Your task to perform on an android device: move a message to another label in the gmail app Image 0: 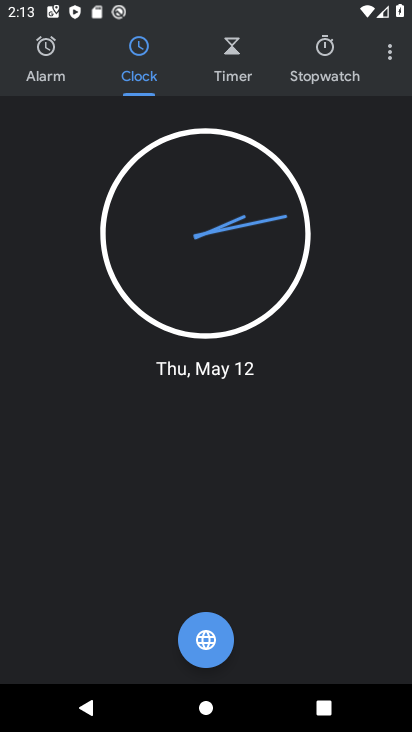
Step 0: press home button
Your task to perform on an android device: move a message to another label in the gmail app Image 1: 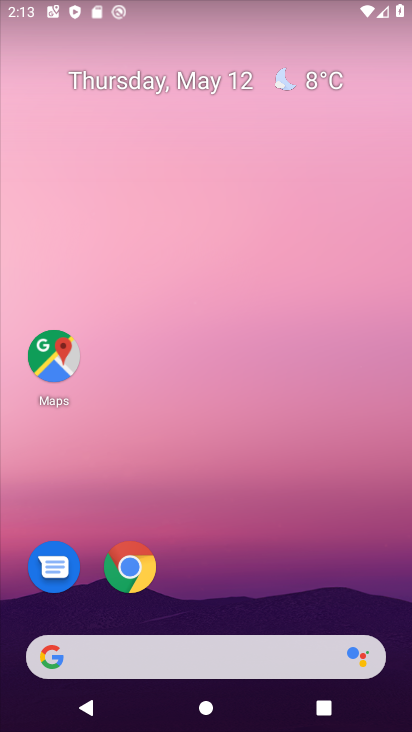
Step 1: drag from (203, 599) to (232, 157)
Your task to perform on an android device: move a message to another label in the gmail app Image 2: 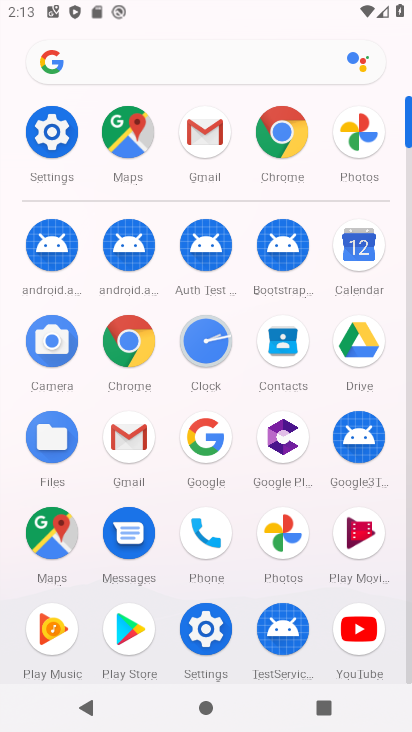
Step 2: click (126, 434)
Your task to perform on an android device: move a message to another label in the gmail app Image 3: 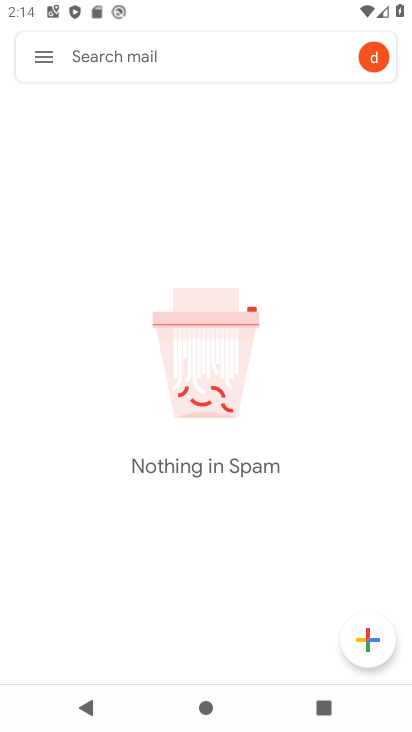
Step 3: click (35, 48)
Your task to perform on an android device: move a message to another label in the gmail app Image 4: 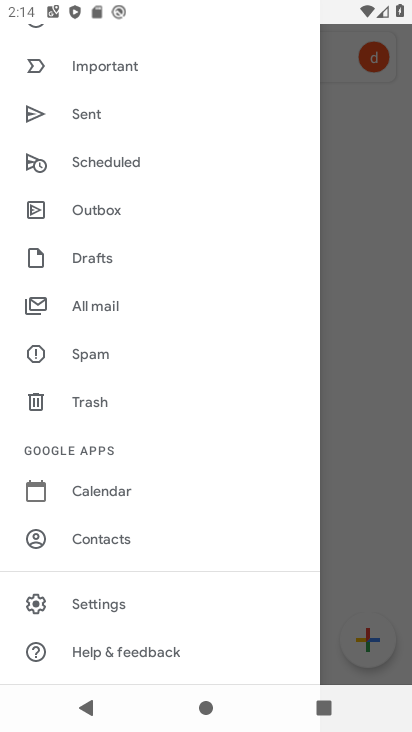
Step 4: click (111, 297)
Your task to perform on an android device: move a message to another label in the gmail app Image 5: 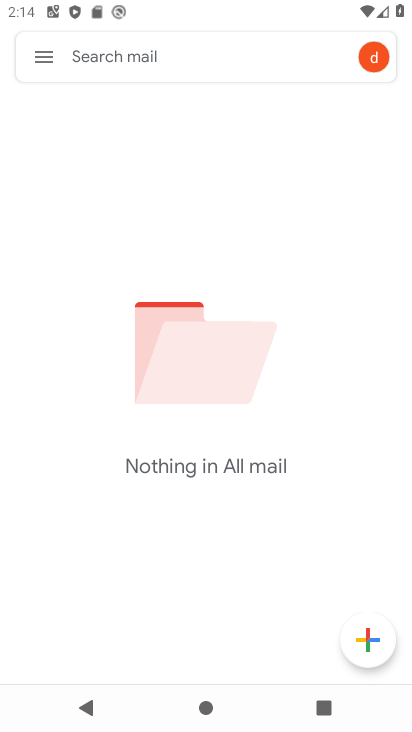
Step 5: task complete